Your task to perform on an android device: change the clock display to show seconds Image 0: 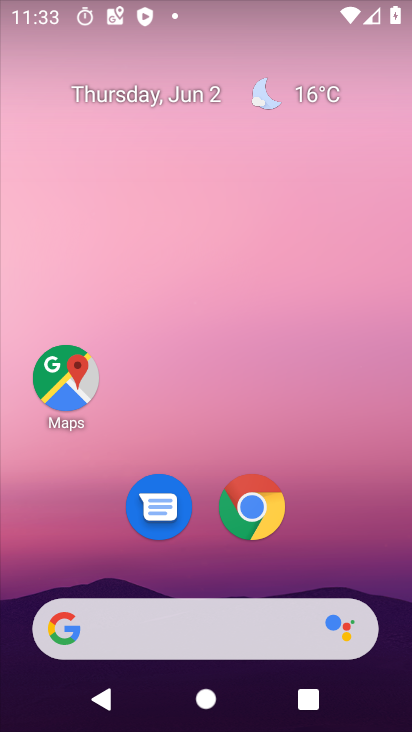
Step 0: drag from (388, 602) to (340, 188)
Your task to perform on an android device: change the clock display to show seconds Image 1: 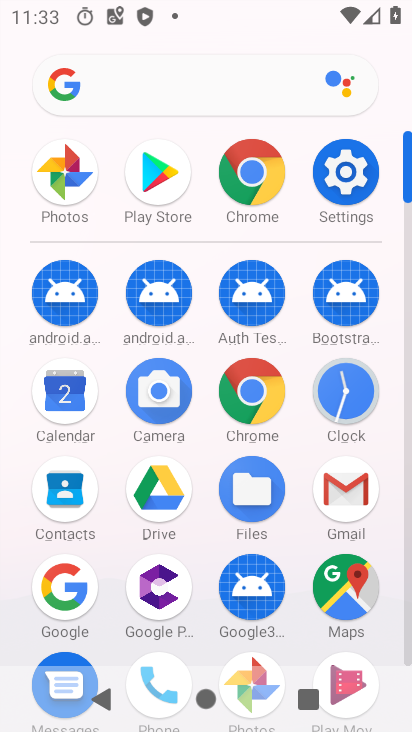
Step 1: click (333, 393)
Your task to perform on an android device: change the clock display to show seconds Image 2: 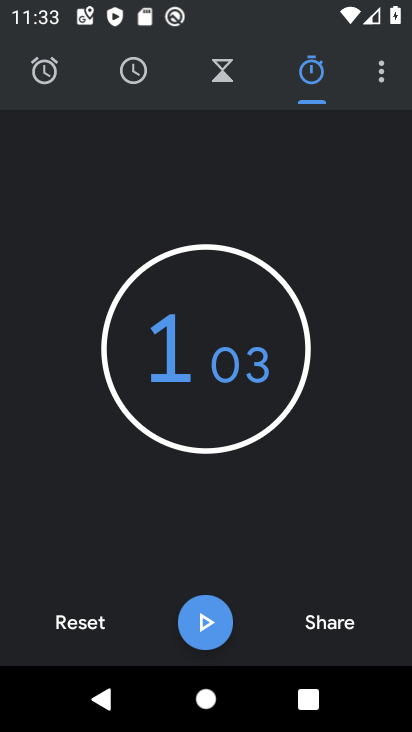
Step 2: click (365, 64)
Your task to perform on an android device: change the clock display to show seconds Image 3: 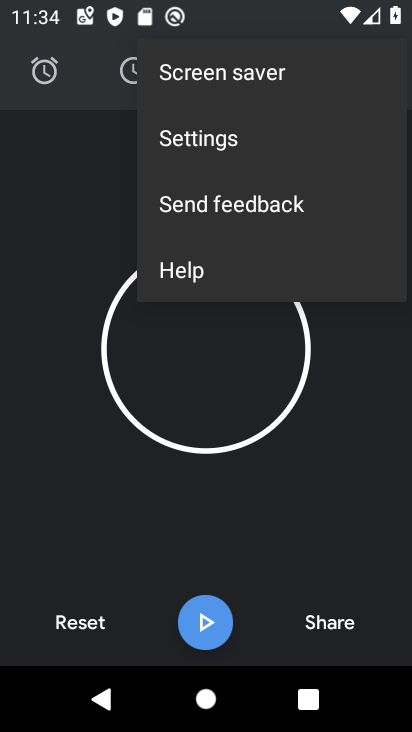
Step 3: click (220, 139)
Your task to perform on an android device: change the clock display to show seconds Image 4: 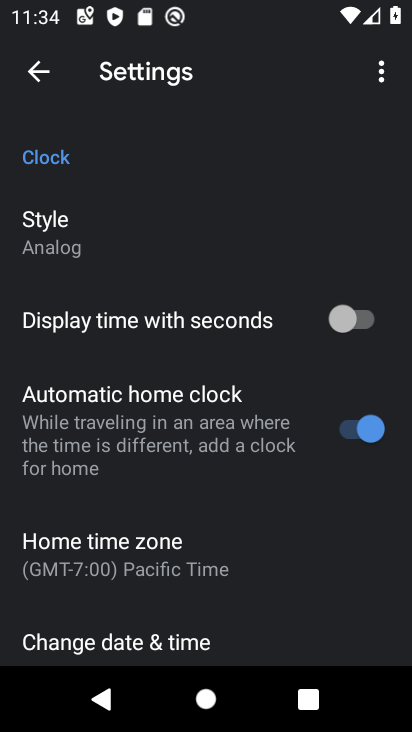
Step 4: click (314, 316)
Your task to perform on an android device: change the clock display to show seconds Image 5: 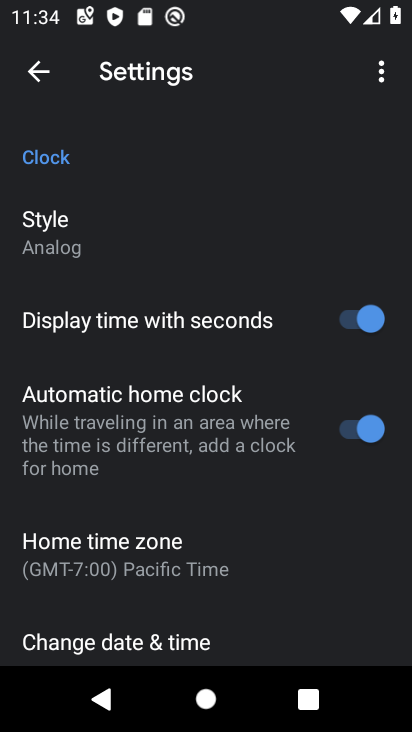
Step 5: task complete